Your task to perform on an android device: delete location history Image 0: 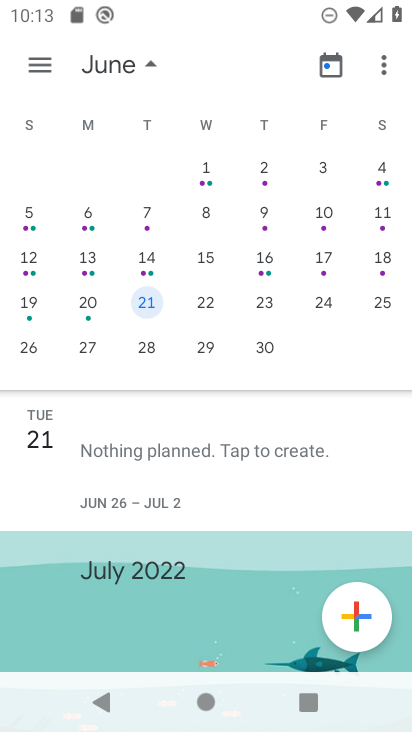
Step 0: press home button
Your task to perform on an android device: delete location history Image 1: 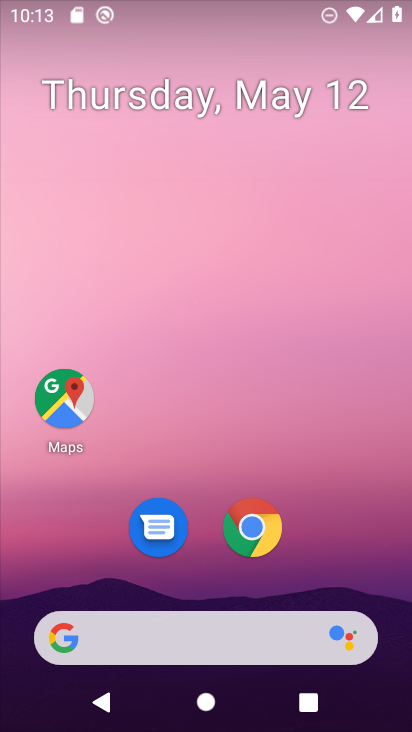
Step 1: drag from (278, 600) to (294, 132)
Your task to perform on an android device: delete location history Image 2: 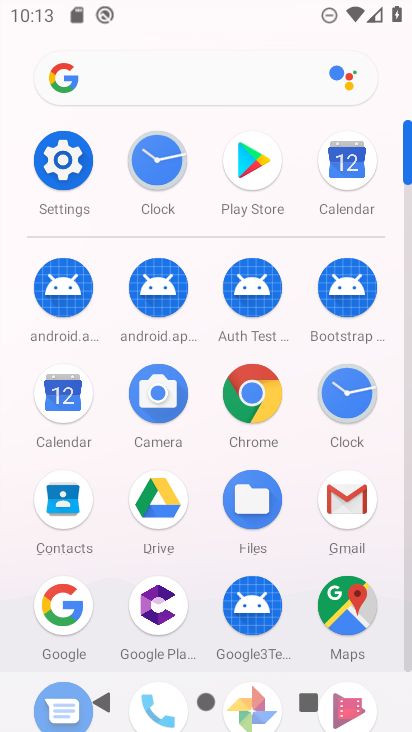
Step 2: click (59, 157)
Your task to perform on an android device: delete location history Image 3: 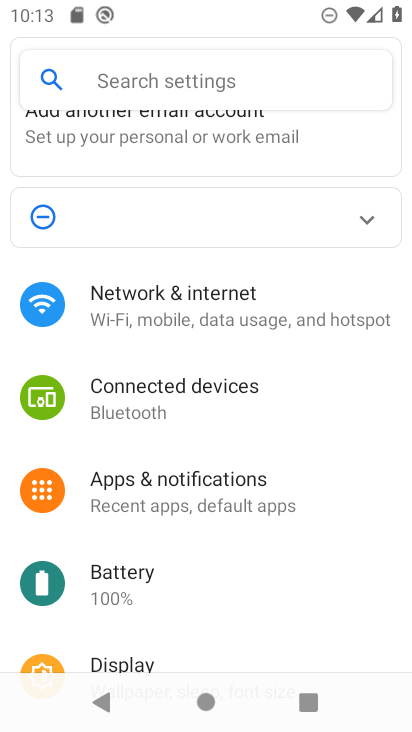
Step 3: drag from (201, 580) to (287, 309)
Your task to perform on an android device: delete location history Image 4: 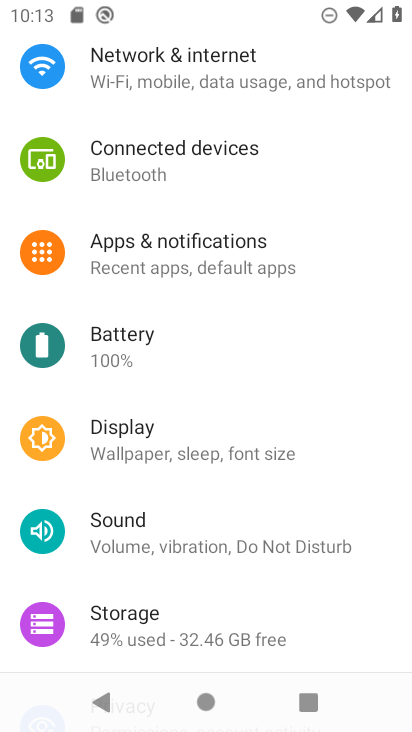
Step 4: drag from (248, 591) to (264, 378)
Your task to perform on an android device: delete location history Image 5: 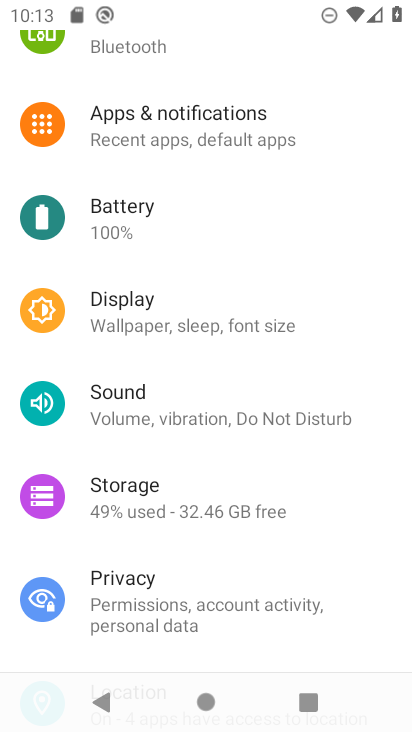
Step 5: drag from (223, 576) to (242, 474)
Your task to perform on an android device: delete location history Image 6: 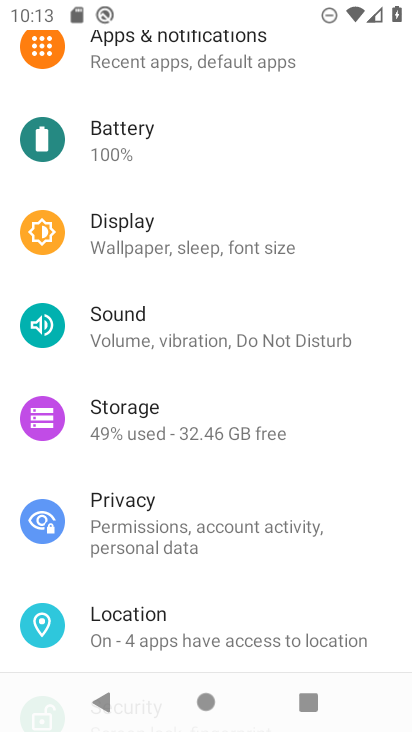
Step 6: click (178, 614)
Your task to perform on an android device: delete location history Image 7: 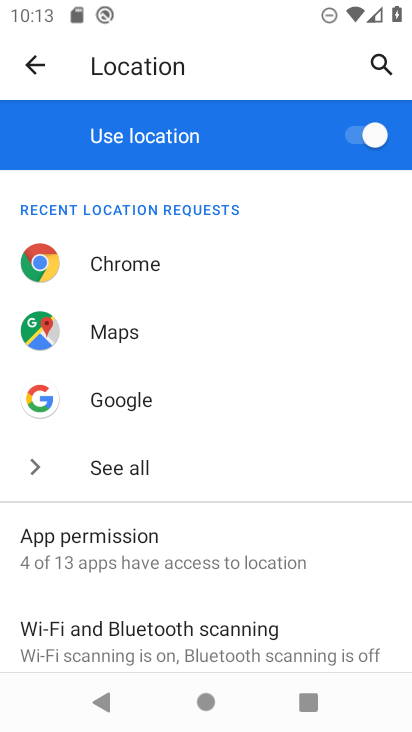
Step 7: drag from (223, 534) to (286, 300)
Your task to perform on an android device: delete location history Image 8: 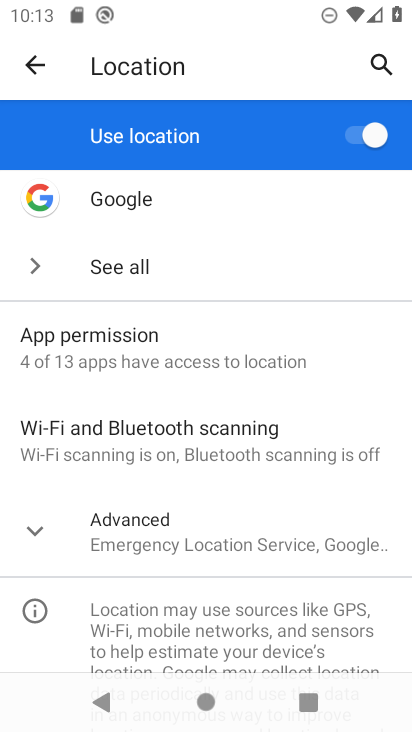
Step 8: click (220, 526)
Your task to perform on an android device: delete location history Image 9: 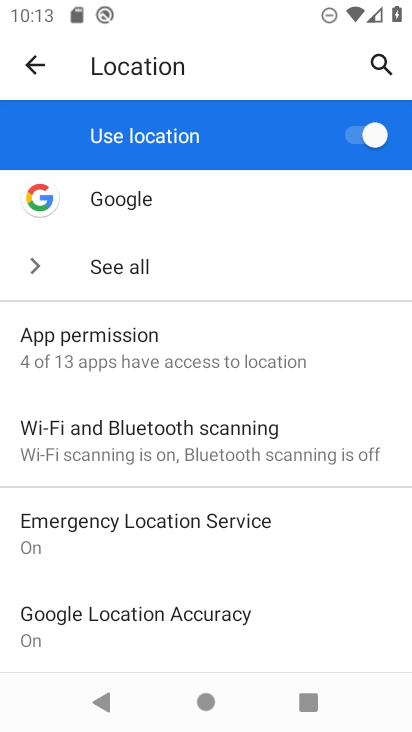
Step 9: drag from (226, 592) to (285, 304)
Your task to perform on an android device: delete location history Image 10: 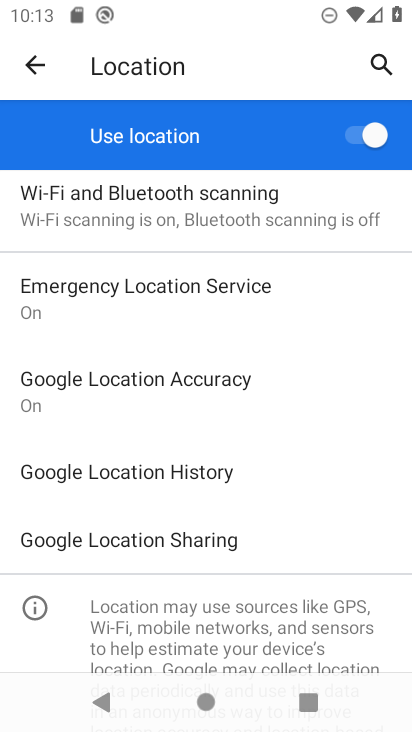
Step 10: click (254, 484)
Your task to perform on an android device: delete location history Image 11: 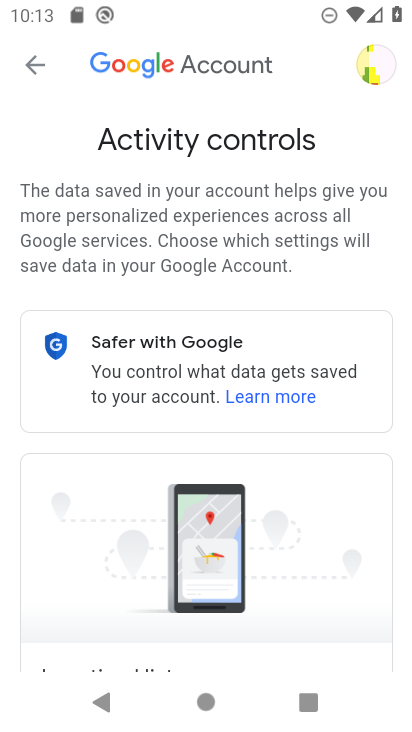
Step 11: drag from (268, 442) to (313, 181)
Your task to perform on an android device: delete location history Image 12: 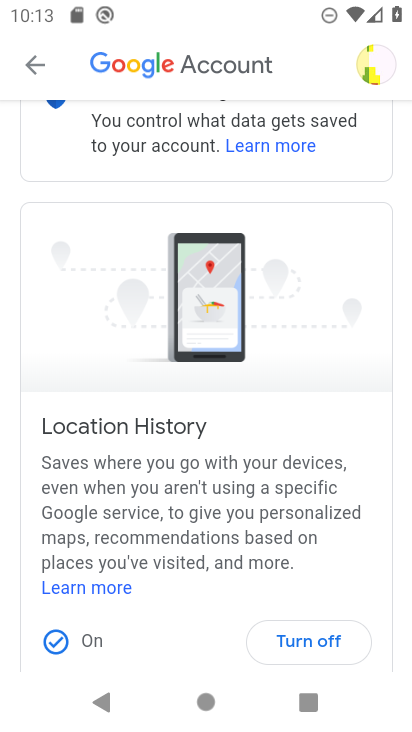
Step 12: drag from (185, 598) to (216, 391)
Your task to perform on an android device: delete location history Image 13: 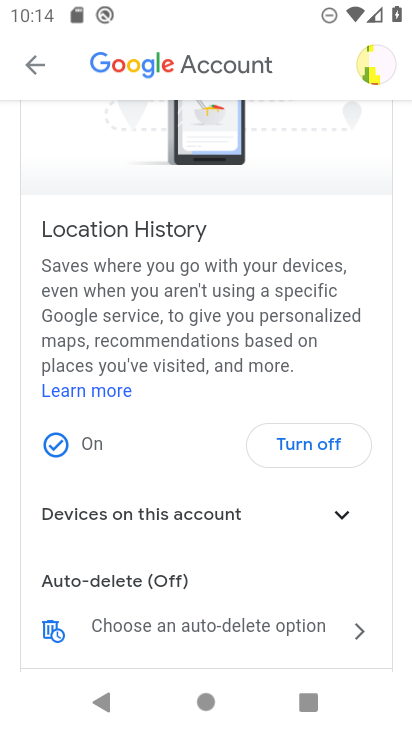
Step 13: drag from (150, 554) to (229, 359)
Your task to perform on an android device: delete location history Image 14: 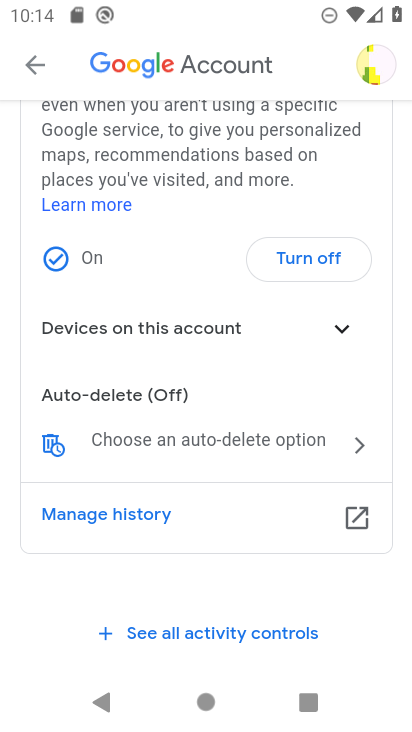
Step 14: click (277, 397)
Your task to perform on an android device: delete location history Image 15: 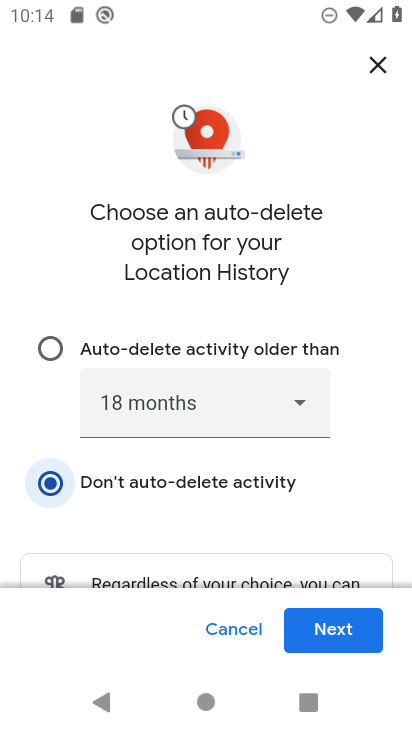
Step 15: click (334, 641)
Your task to perform on an android device: delete location history Image 16: 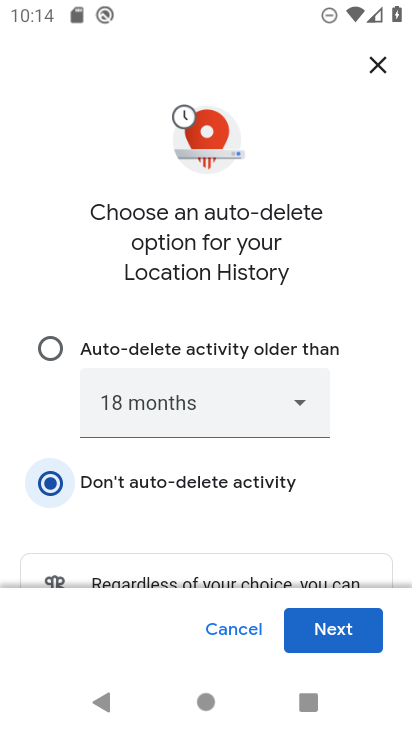
Step 16: click (334, 641)
Your task to perform on an android device: delete location history Image 17: 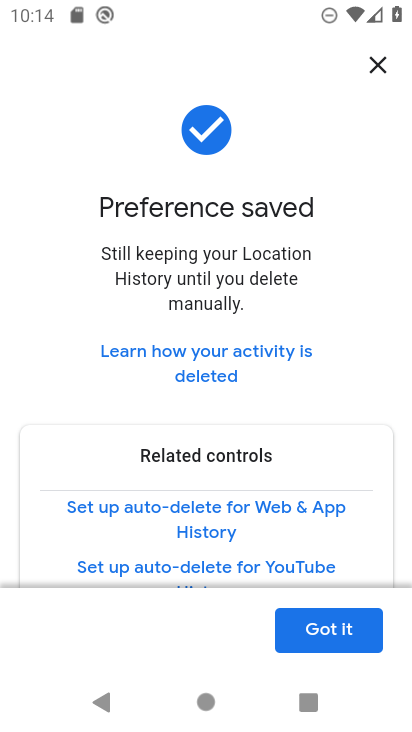
Step 17: click (334, 641)
Your task to perform on an android device: delete location history Image 18: 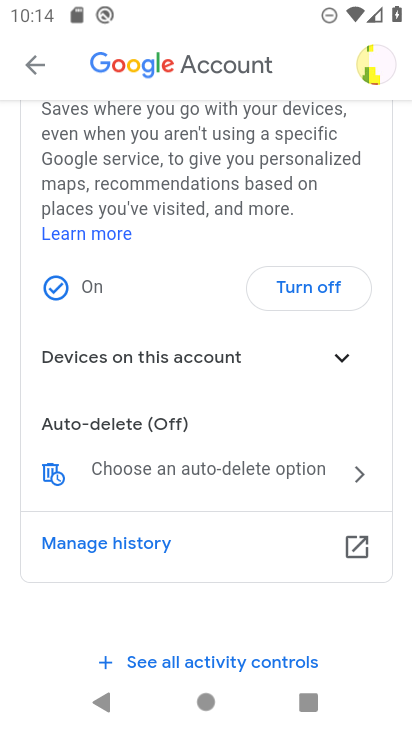
Step 18: task complete